Your task to perform on an android device: Go to eBay Image 0: 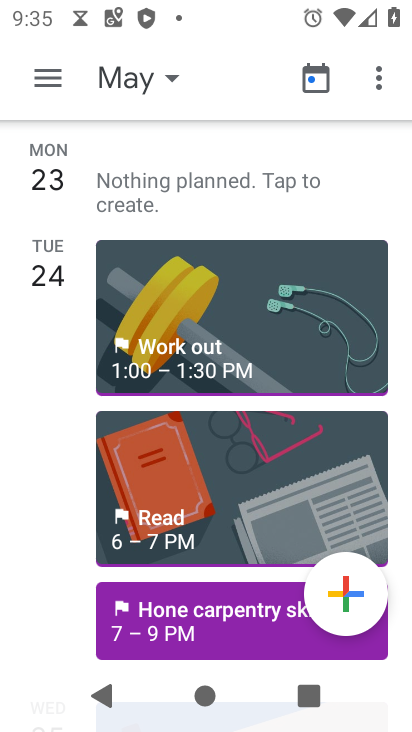
Step 0: press home button
Your task to perform on an android device: Go to eBay Image 1: 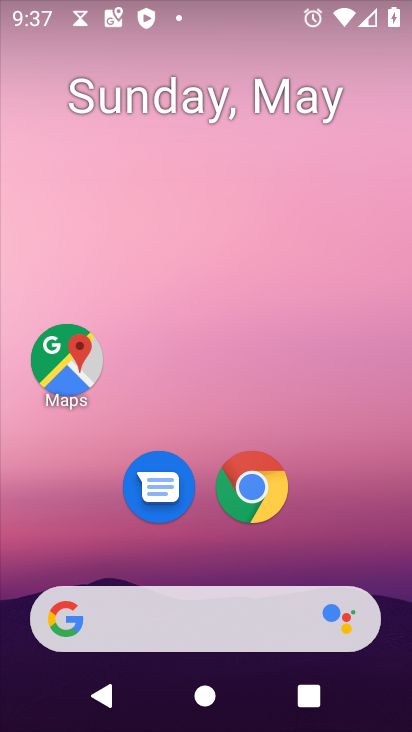
Step 1: click (245, 496)
Your task to perform on an android device: Go to eBay Image 2: 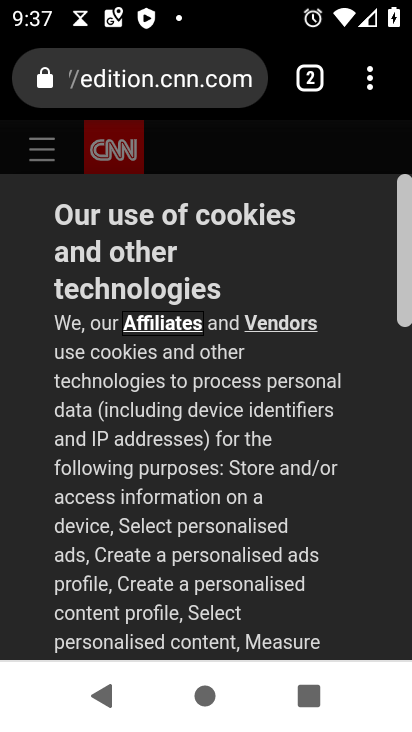
Step 2: click (117, 65)
Your task to perform on an android device: Go to eBay Image 3: 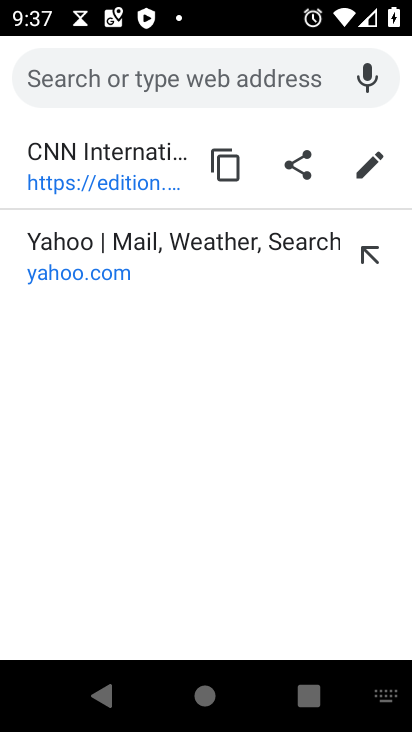
Step 3: type "ebay"
Your task to perform on an android device: Go to eBay Image 4: 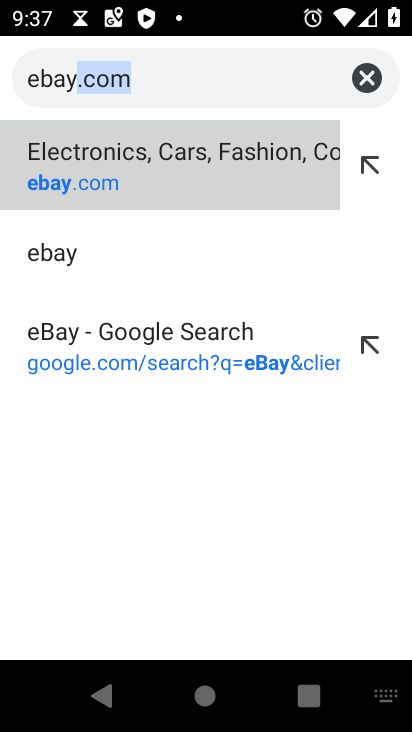
Step 4: click (165, 183)
Your task to perform on an android device: Go to eBay Image 5: 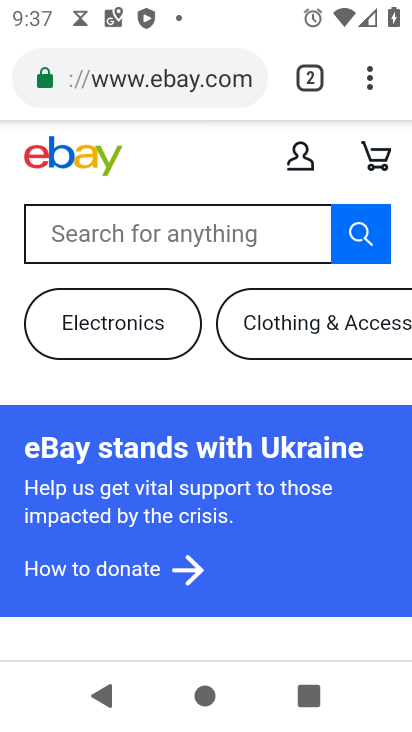
Step 5: task complete